Your task to perform on an android device: delete browsing data in the chrome app Image 0: 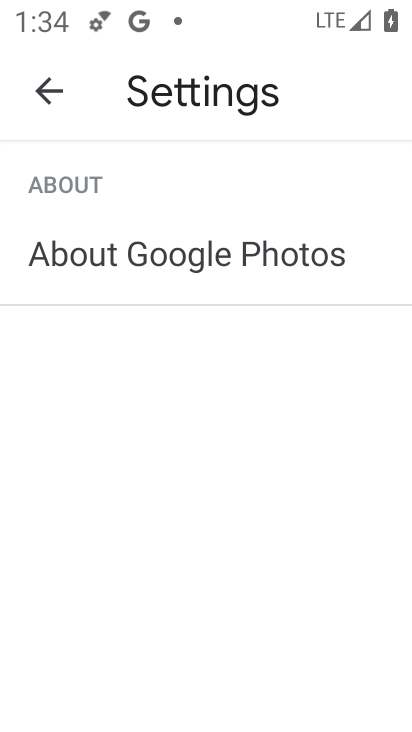
Step 0: press home button
Your task to perform on an android device: delete browsing data in the chrome app Image 1: 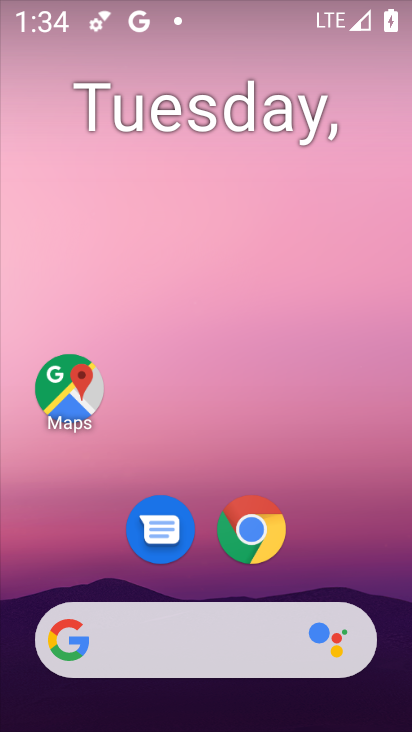
Step 1: click (244, 539)
Your task to perform on an android device: delete browsing data in the chrome app Image 2: 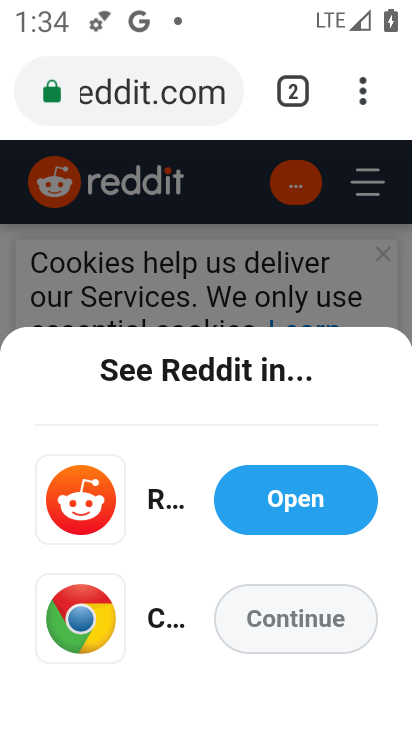
Step 2: click (357, 81)
Your task to perform on an android device: delete browsing data in the chrome app Image 3: 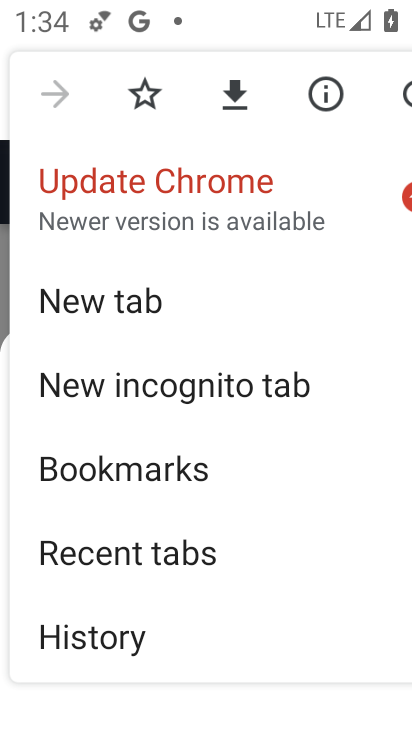
Step 3: drag from (287, 628) to (274, 328)
Your task to perform on an android device: delete browsing data in the chrome app Image 4: 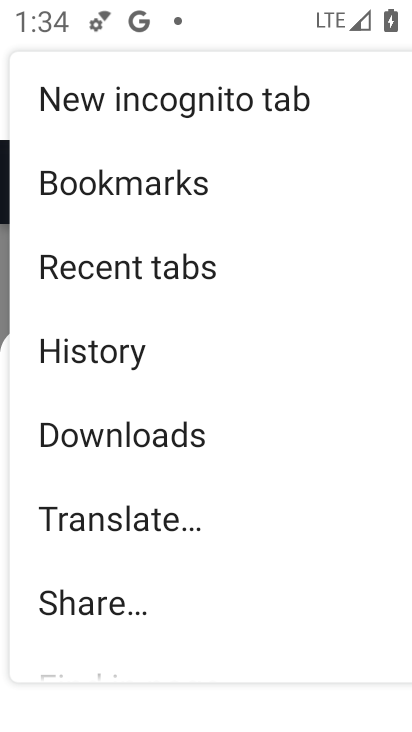
Step 4: drag from (353, 625) to (335, 118)
Your task to perform on an android device: delete browsing data in the chrome app Image 5: 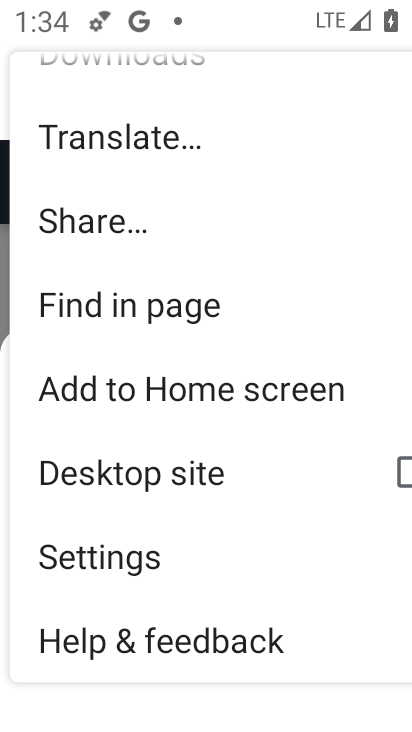
Step 5: drag from (314, 406) to (324, 624)
Your task to perform on an android device: delete browsing data in the chrome app Image 6: 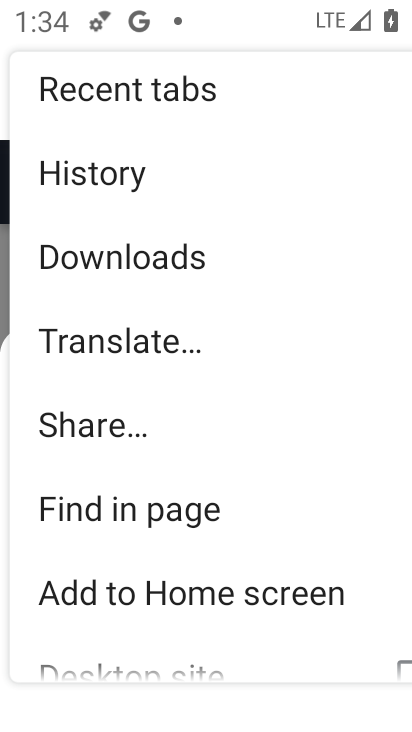
Step 6: click (101, 169)
Your task to perform on an android device: delete browsing data in the chrome app Image 7: 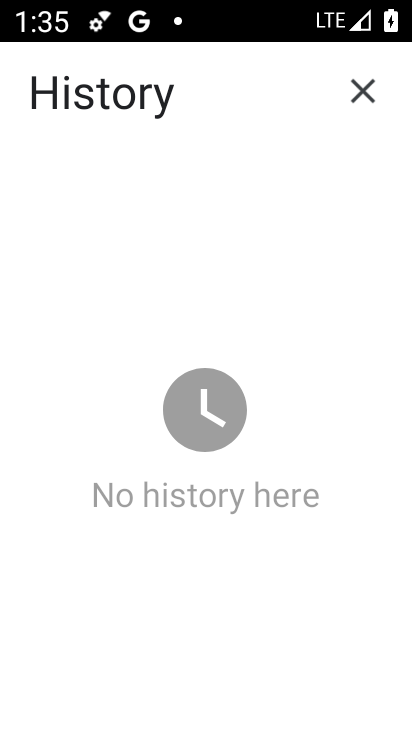
Step 7: task complete